Your task to perform on an android device: Show me popular videos on Youtube Image 0: 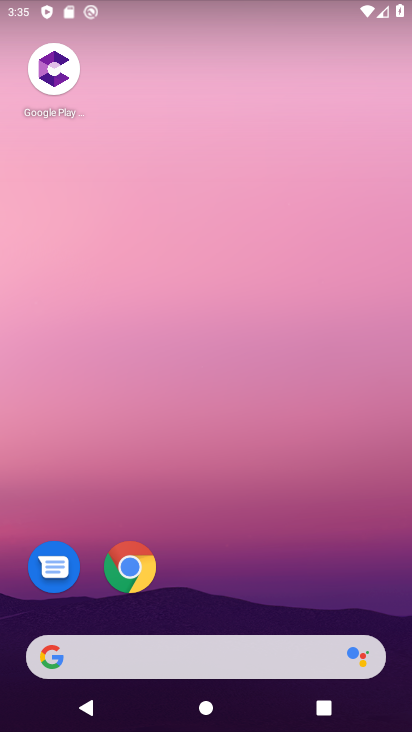
Step 0: drag from (191, 590) to (211, 1)
Your task to perform on an android device: Show me popular videos on Youtube Image 1: 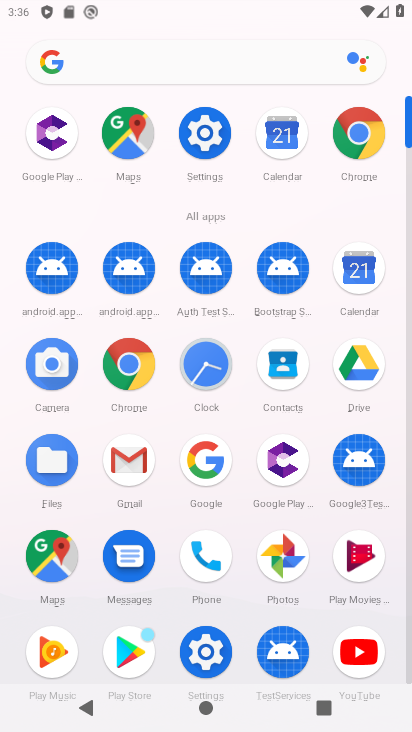
Step 1: click (360, 649)
Your task to perform on an android device: Show me popular videos on Youtube Image 2: 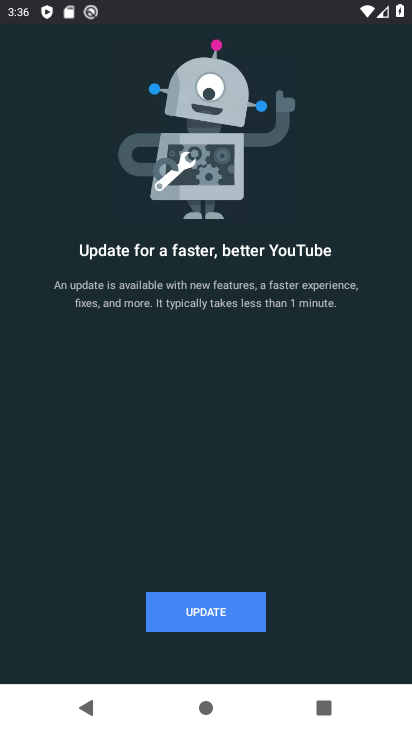
Step 2: task complete